Your task to perform on an android device: Show the shopping cart on costco.com. Add logitech g pro to the cart on costco.com Image 0: 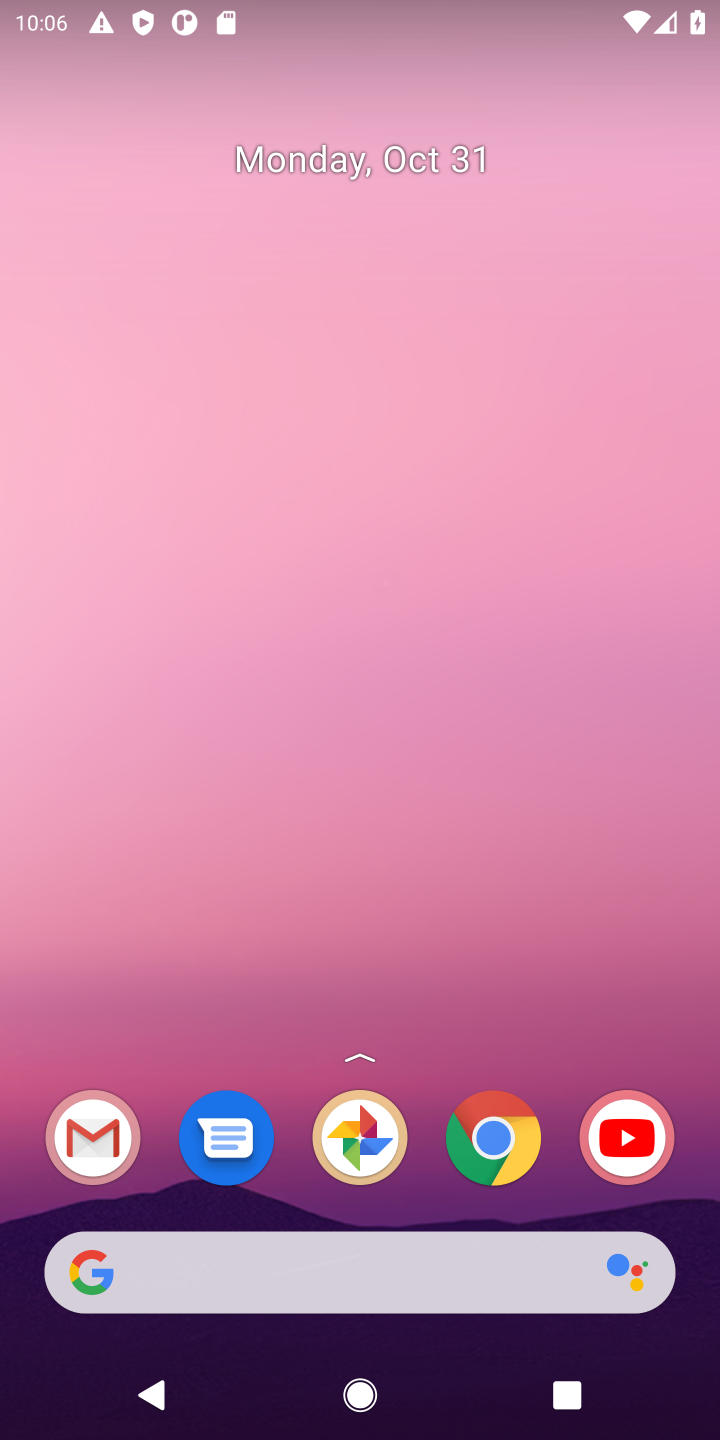
Step 0: click (509, 1149)
Your task to perform on an android device: Show the shopping cart on costco.com. Add logitech g pro to the cart on costco.com Image 1: 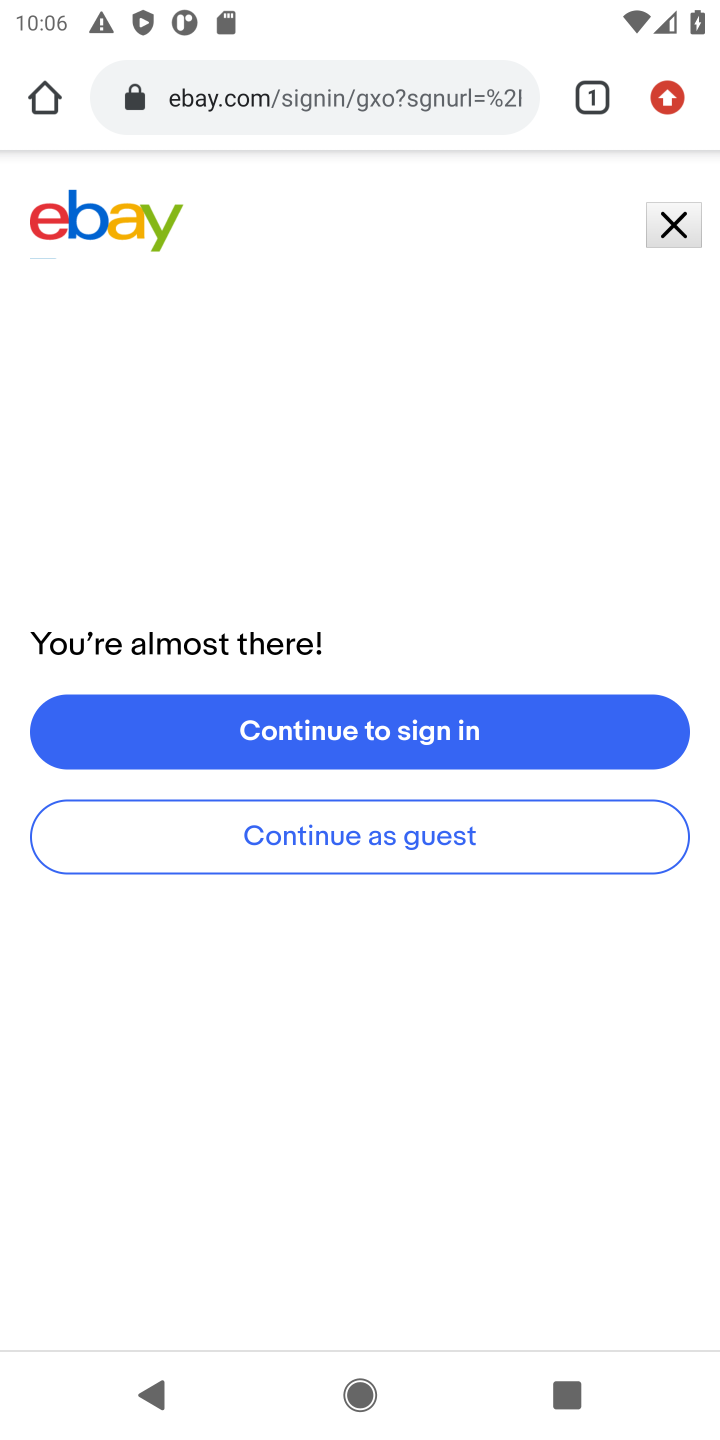
Step 1: click (367, 107)
Your task to perform on an android device: Show the shopping cart on costco.com. Add logitech g pro to the cart on costco.com Image 2: 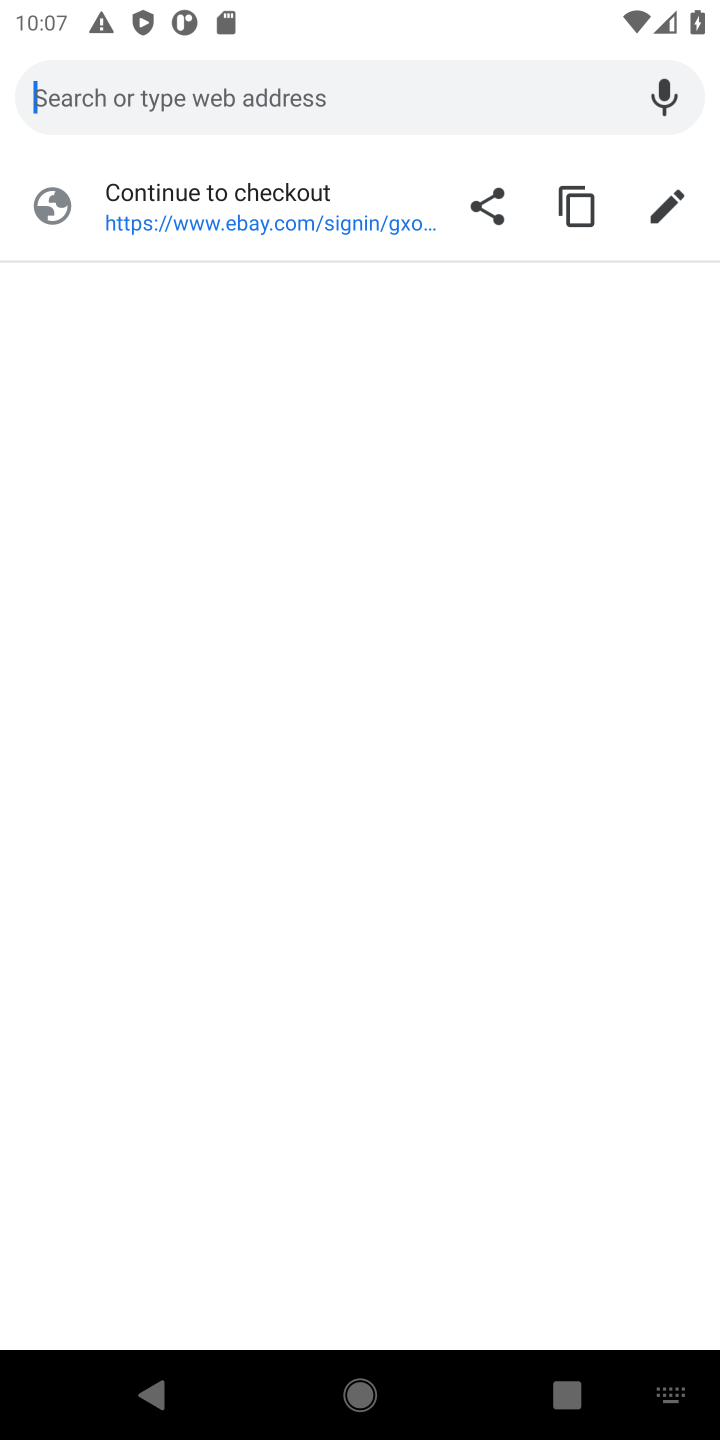
Step 2: type "costco"
Your task to perform on an android device: Show the shopping cart on costco.com. Add logitech g pro to the cart on costco.com Image 3: 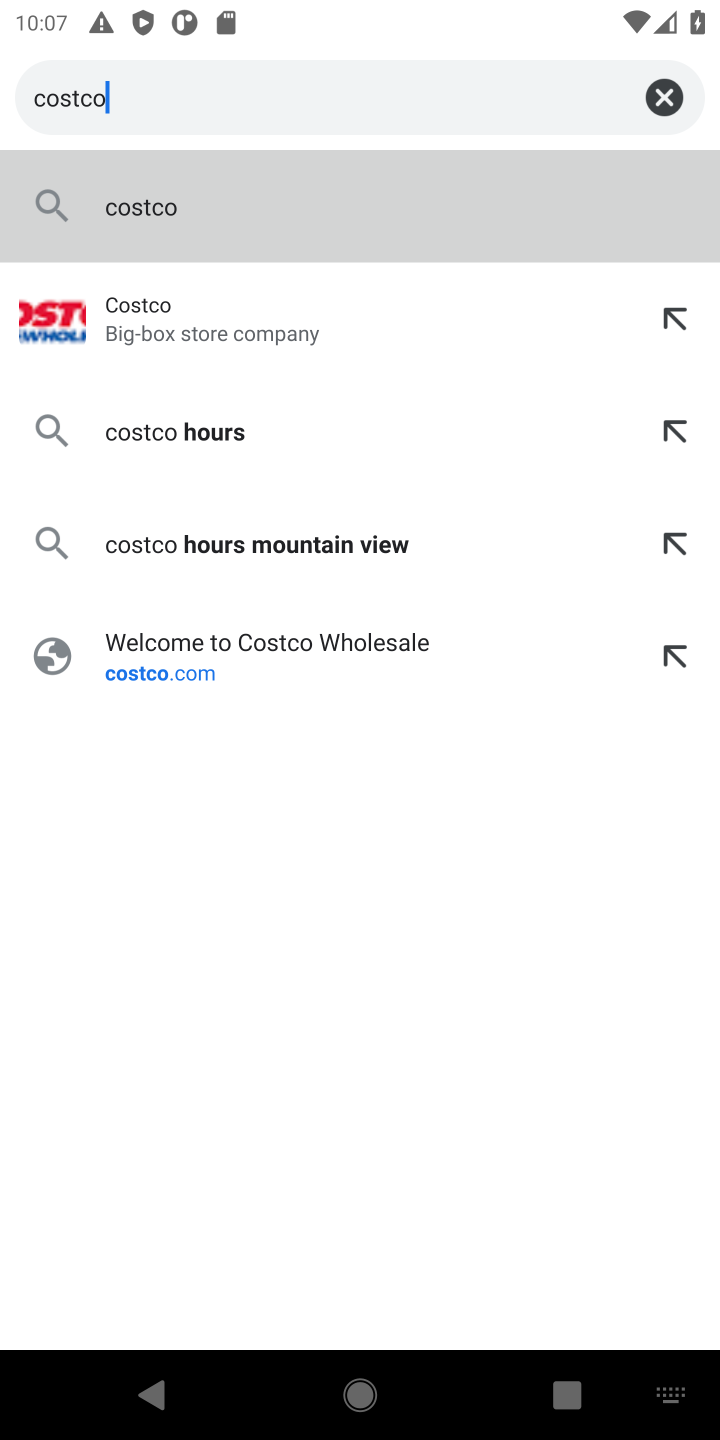
Step 3: click (379, 343)
Your task to perform on an android device: Show the shopping cart on costco.com. Add logitech g pro to the cart on costco.com Image 4: 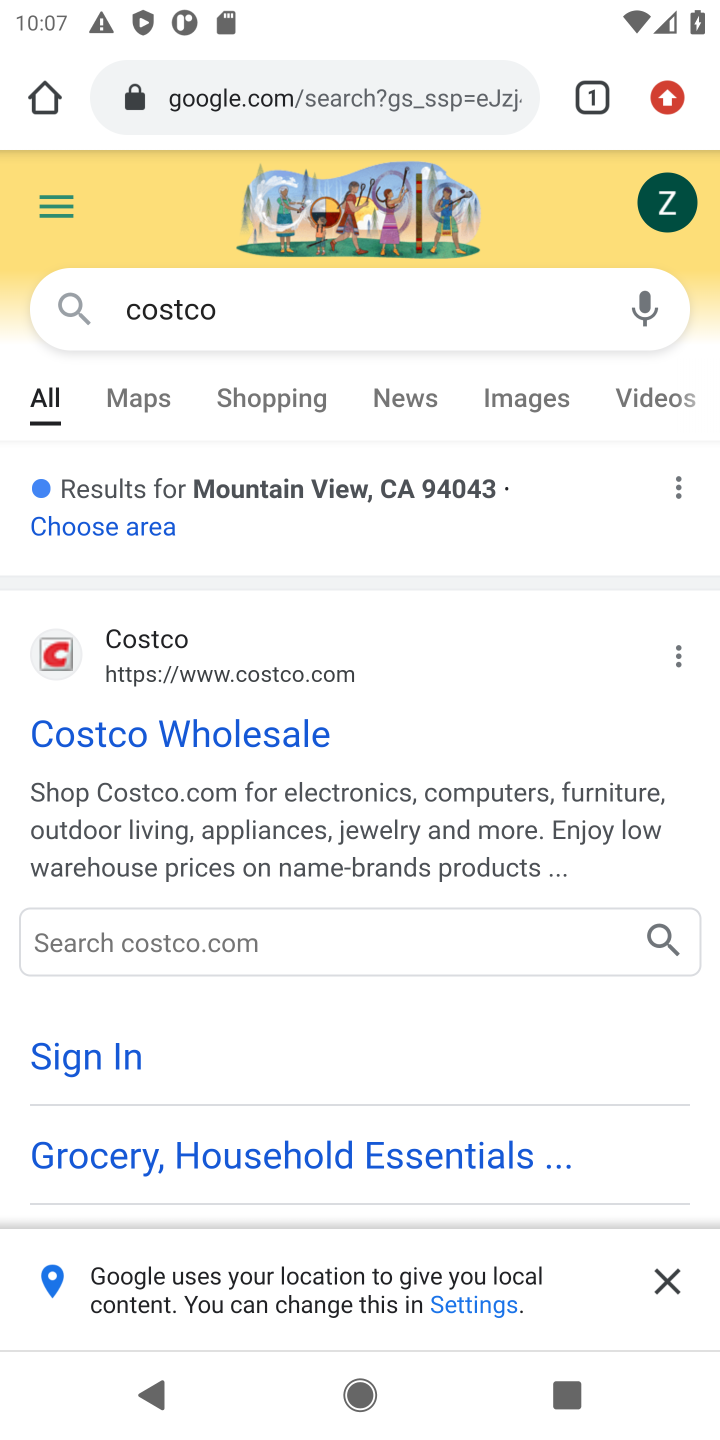
Step 4: click (222, 732)
Your task to perform on an android device: Show the shopping cart on costco.com. Add logitech g pro to the cart on costco.com Image 5: 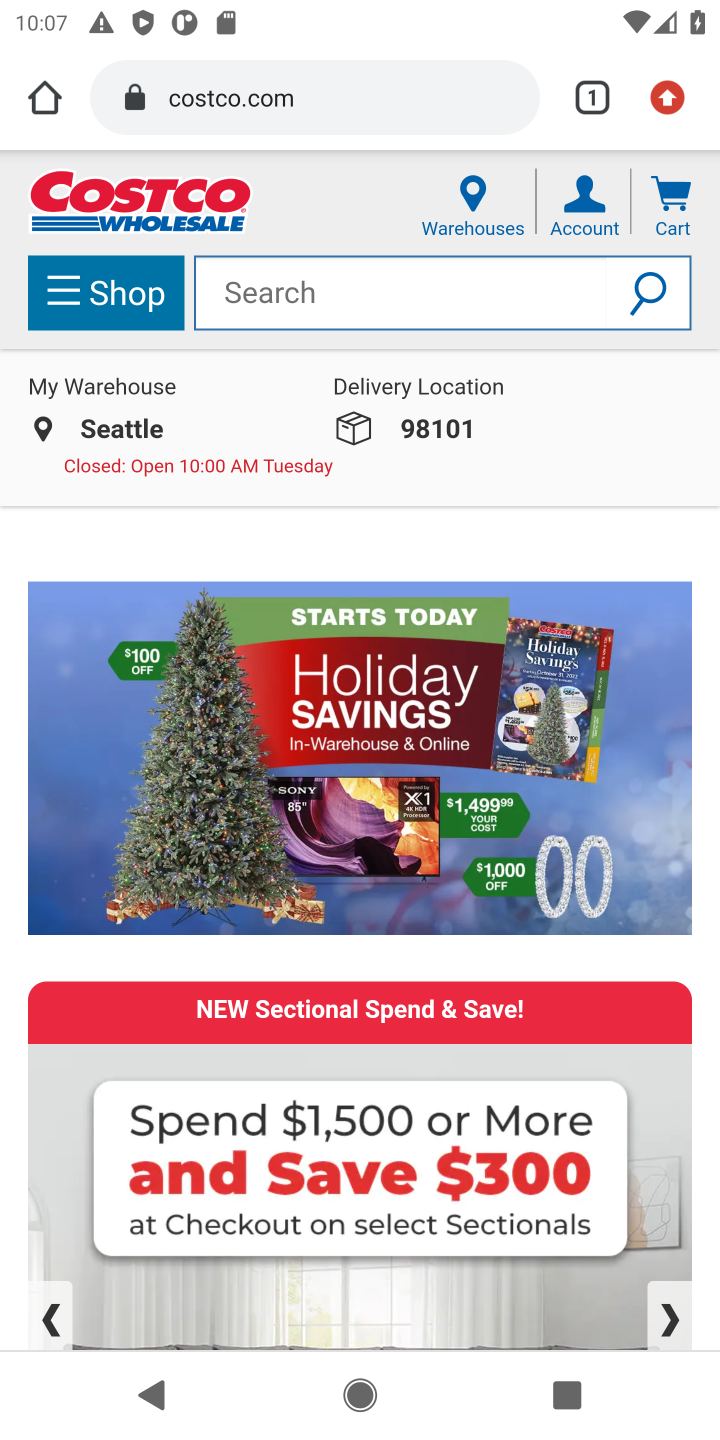
Step 5: click (408, 270)
Your task to perform on an android device: Show the shopping cart on costco.com. Add logitech g pro to the cart on costco.com Image 6: 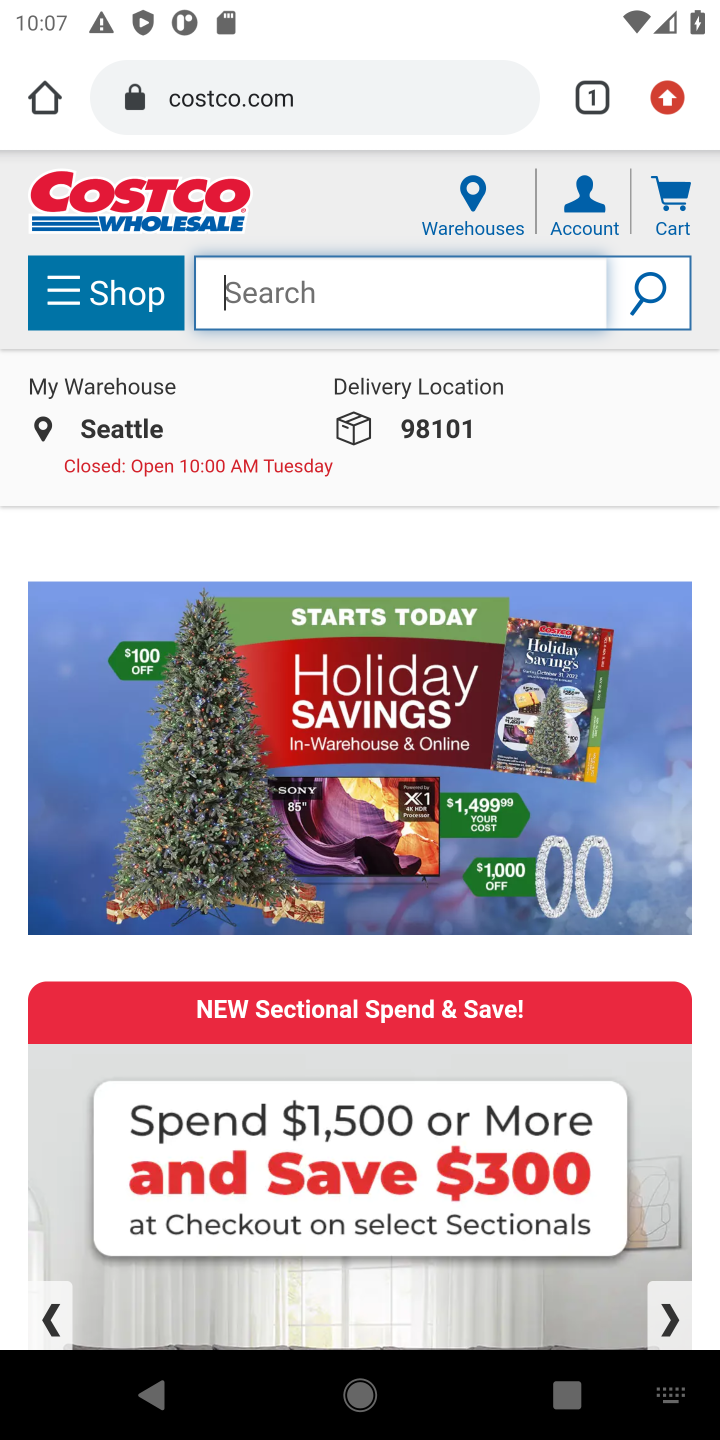
Step 6: click (688, 189)
Your task to perform on an android device: Show the shopping cart on costco.com. Add logitech g pro to the cart on costco.com Image 7: 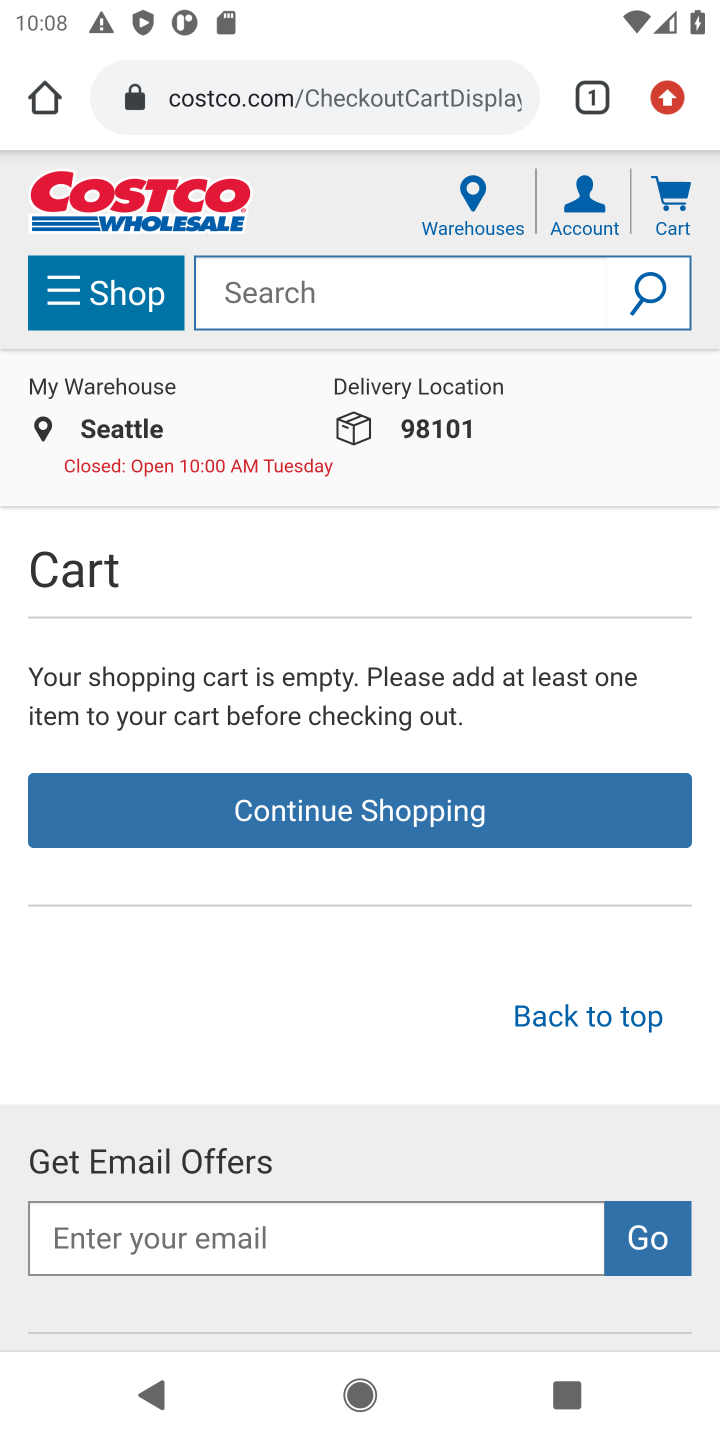
Step 7: click (413, 281)
Your task to perform on an android device: Show the shopping cart on costco.com. Add logitech g pro to the cart on costco.com Image 8: 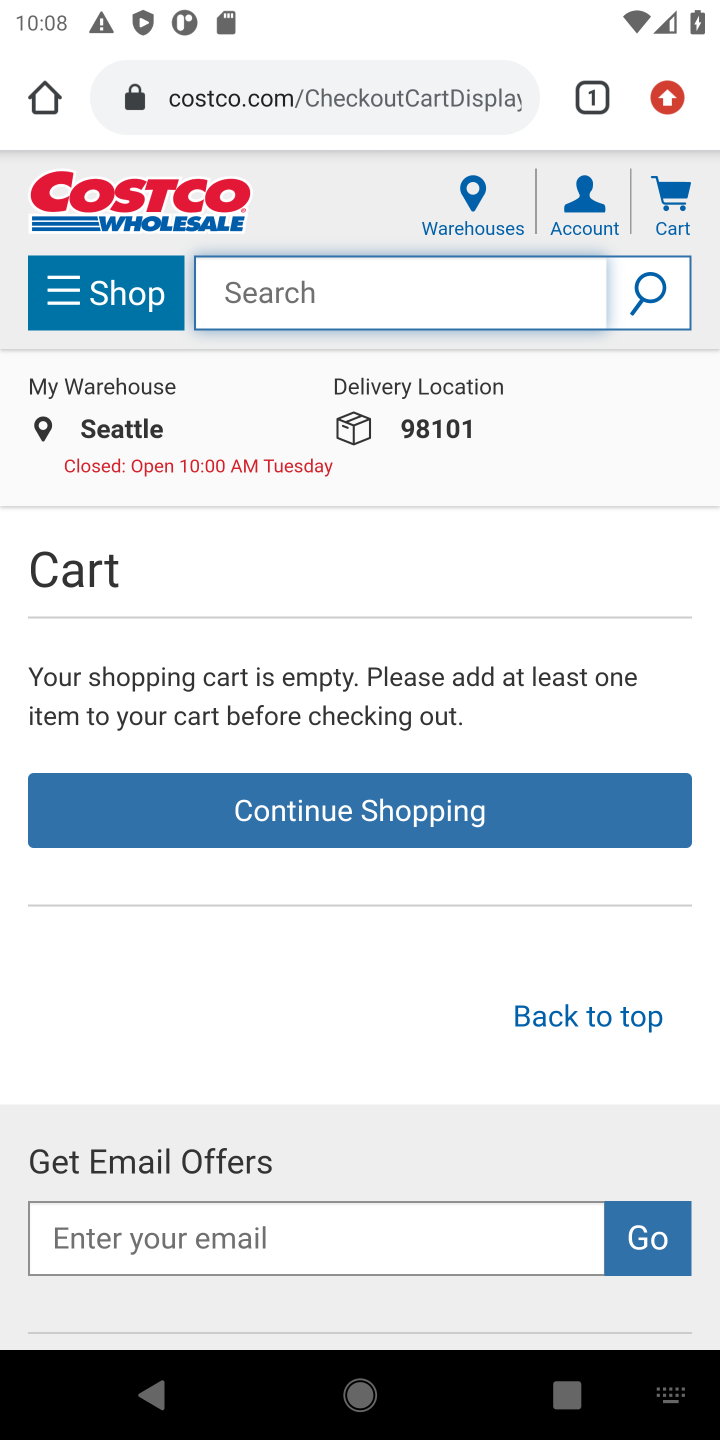
Step 8: type "logitech g pro"
Your task to perform on an android device: Show the shopping cart on costco.com. Add logitech g pro to the cart on costco.com Image 9: 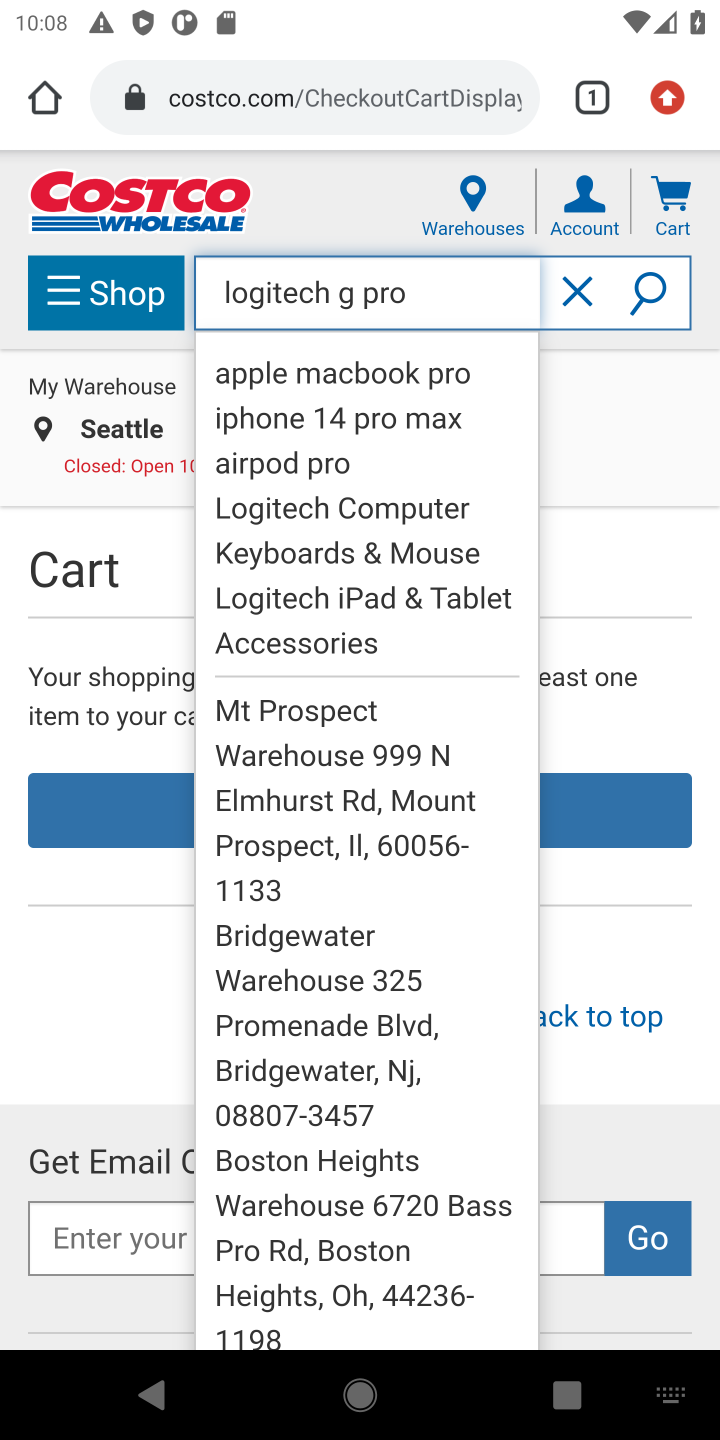
Step 9: click (639, 298)
Your task to perform on an android device: Show the shopping cart on costco.com. Add logitech g pro to the cart on costco.com Image 10: 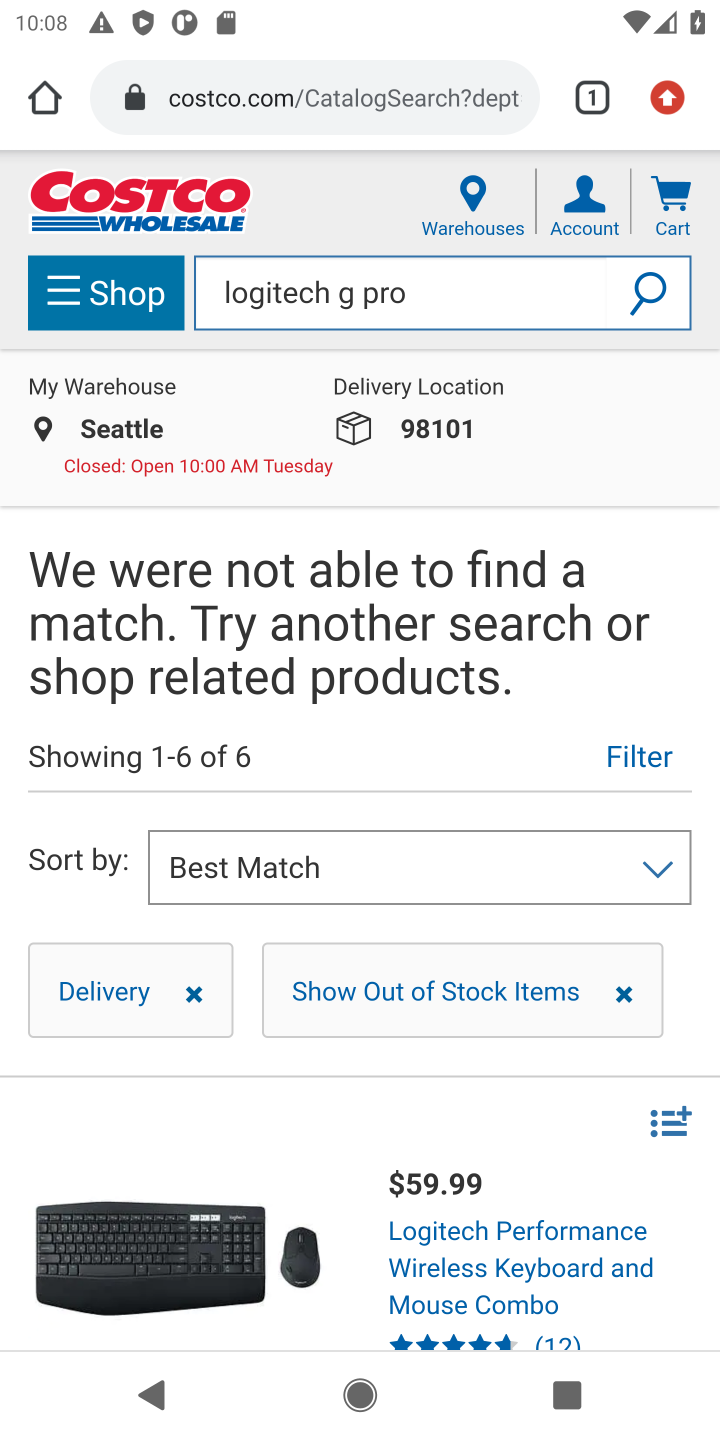
Step 10: task complete